Your task to perform on an android device: toggle airplane mode Image 0: 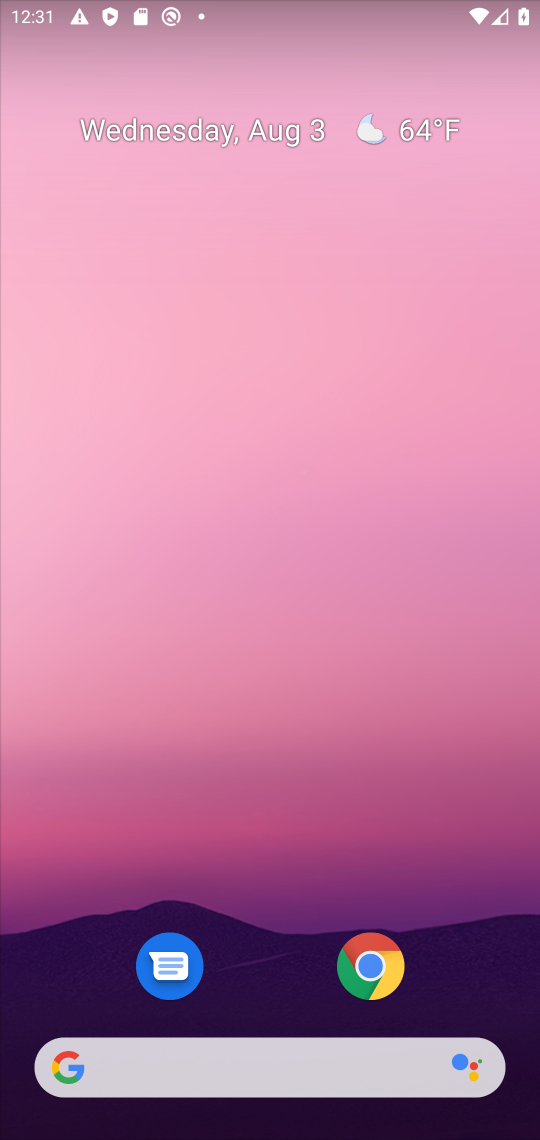
Step 0: drag from (282, 976) to (261, 288)
Your task to perform on an android device: toggle airplane mode Image 1: 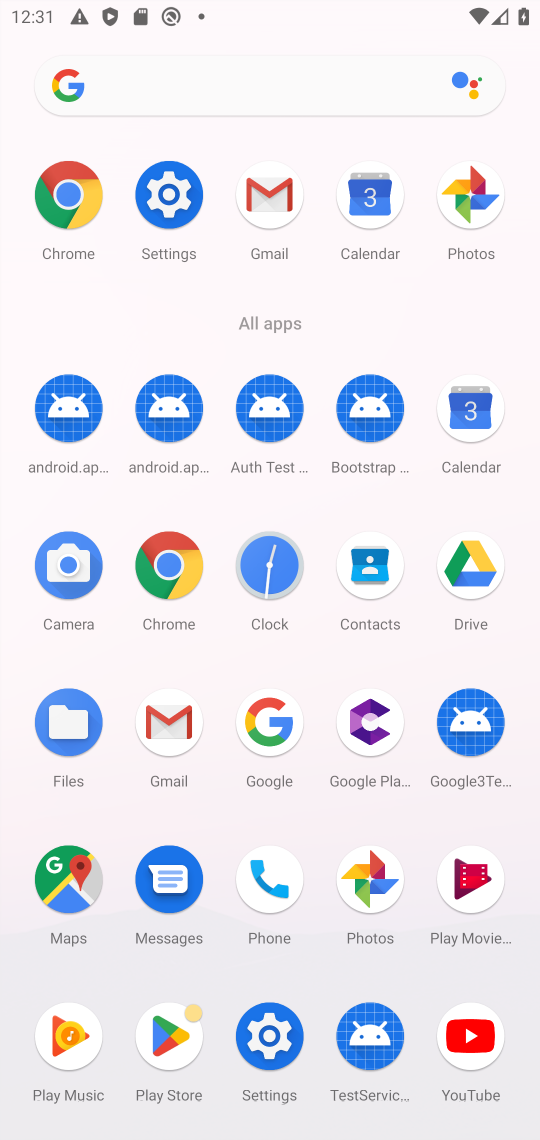
Step 1: click (162, 210)
Your task to perform on an android device: toggle airplane mode Image 2: 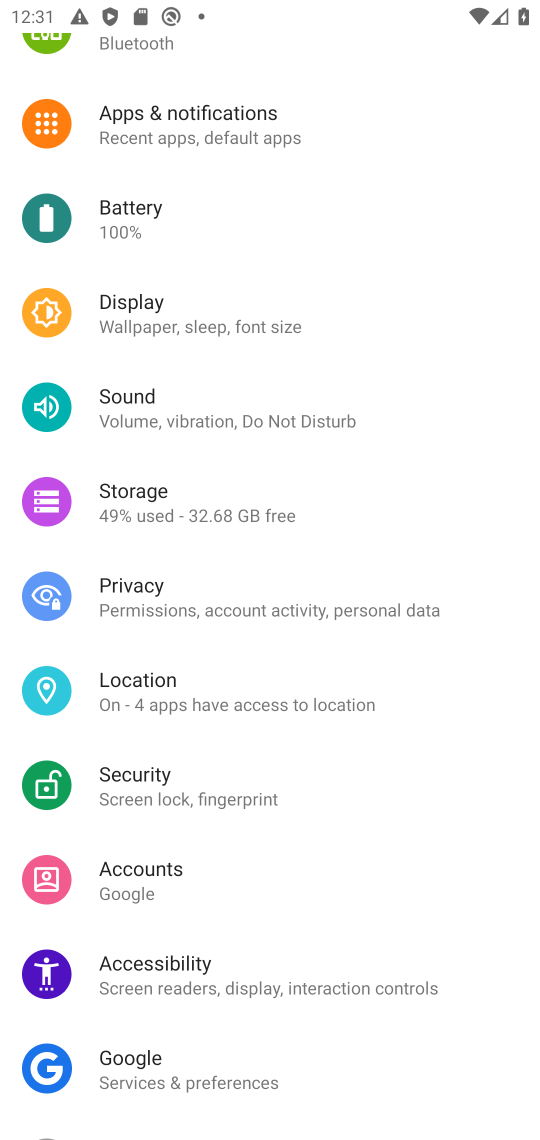
Step 2: drag from (205, 217) to (239, 726)
Your task to perform on an android device: toggle airplane mode Image 3: 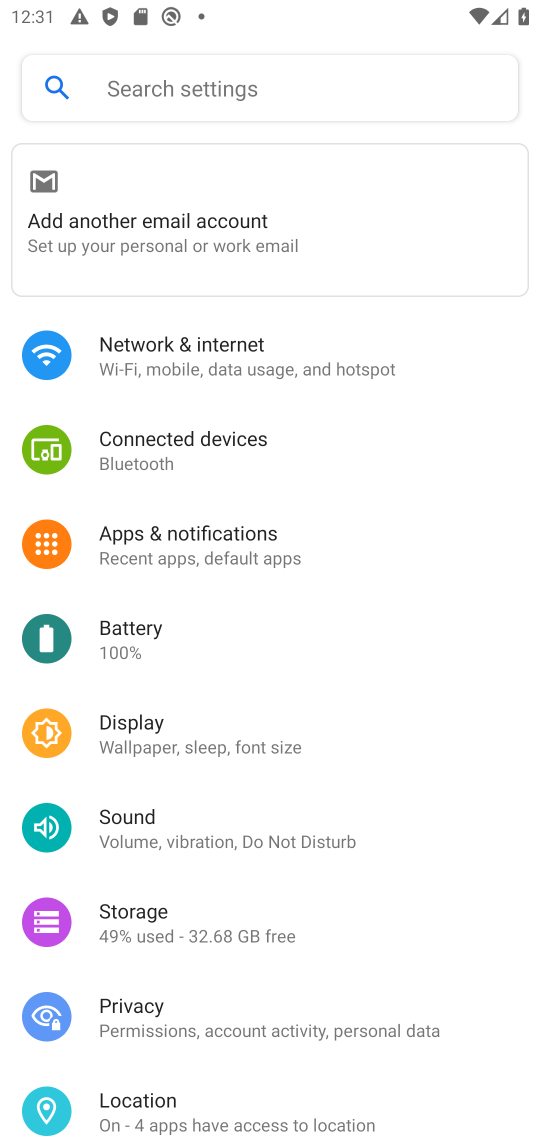
Step 3: click (204, 374)
Your task to perform on an android device: toggle airplane mode Image 4: 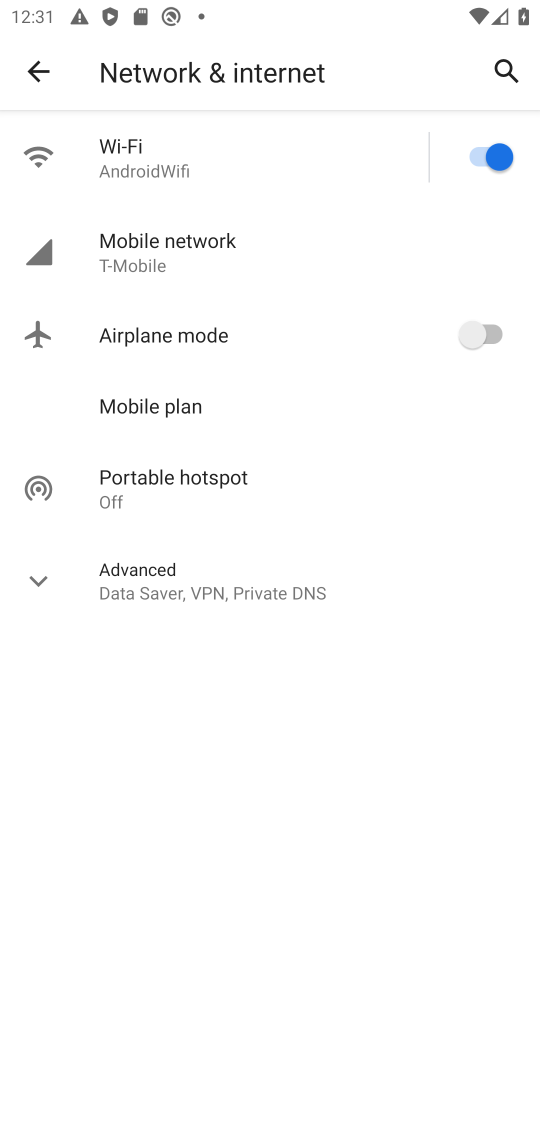
Step 4: click (492, 343)
Your task to perform on an android device: toggle airplane mode Image 5: 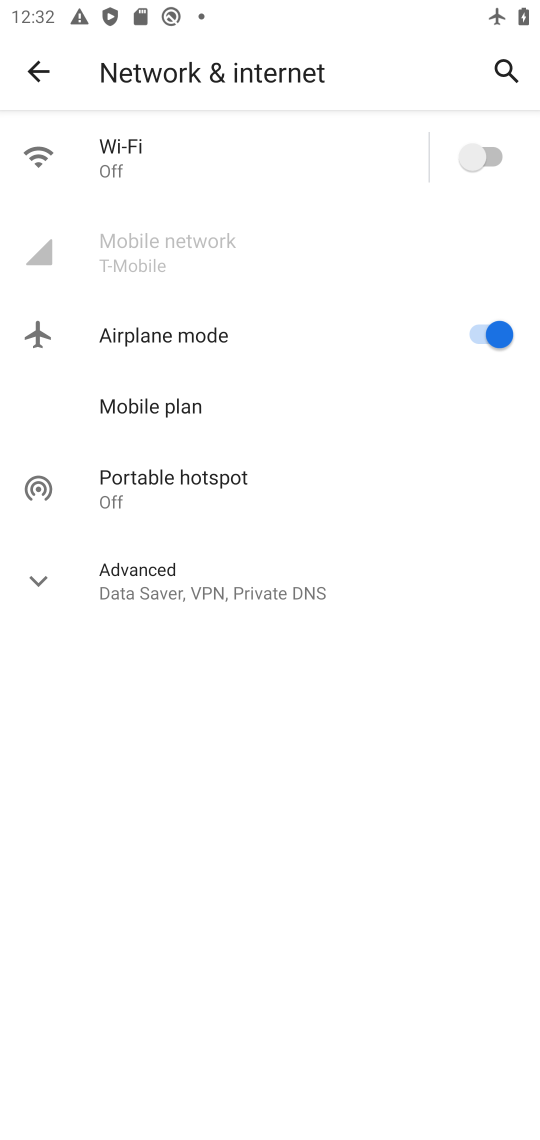
Step 5: task complete